Your task to perform on an android device: Search for sushi restaurants on Maps Image 0: 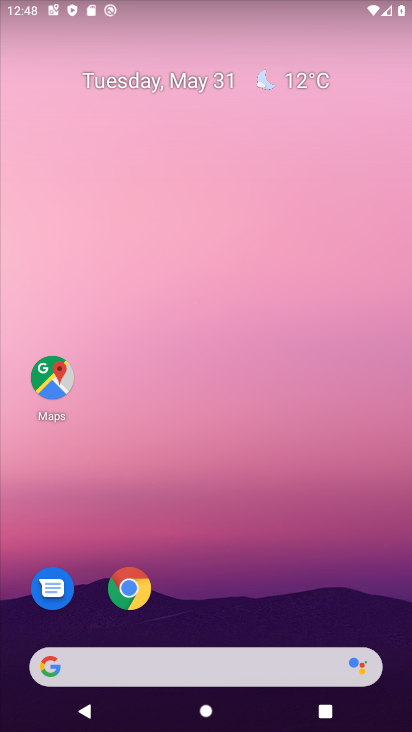
Step 0: click (46, 385)
Your task to perform on an android device: Search for sushi restaurants on Maps Image 1: 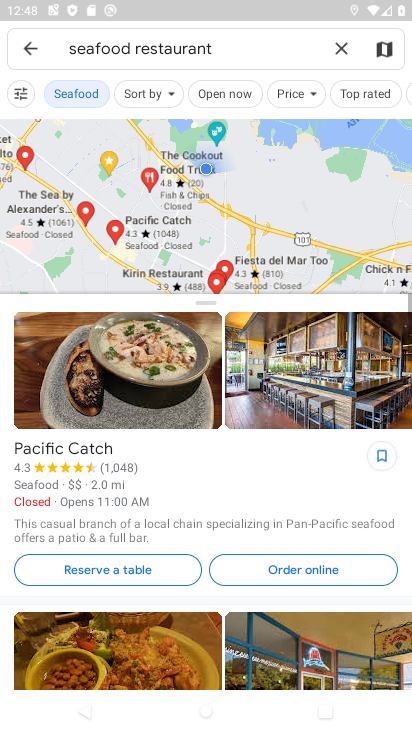
Step 1: click (335, 47)
Your task to perform on an android device: Search for sushi restaurants on Maps Image 2: 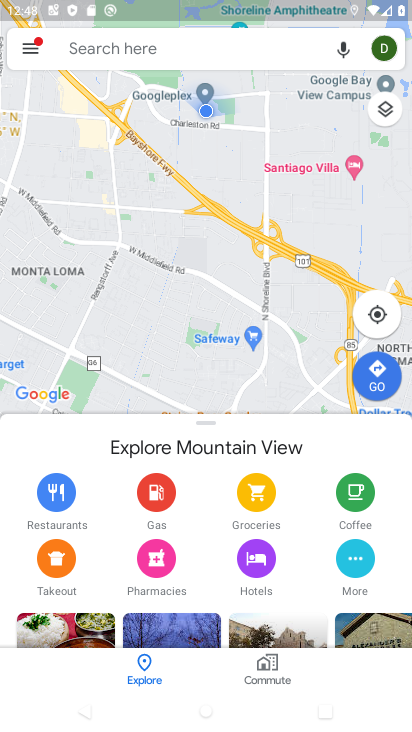
Step 2: click (194, 52)
Your task to perform on an android device: Search for sushi restaurants on Maps Image 3: 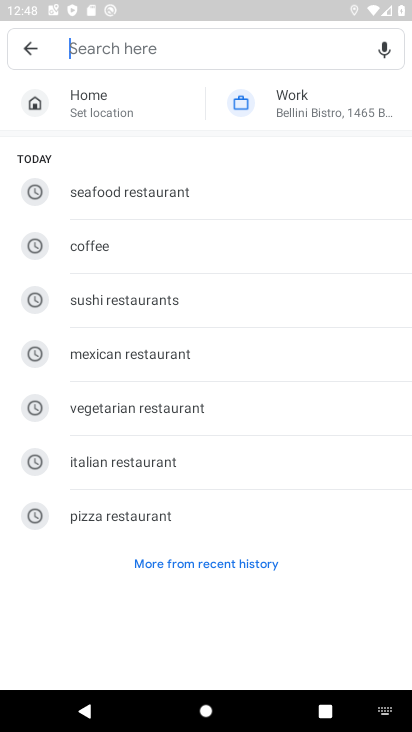
Step 3: type "sushi restaurants"
Your task to perform on an android device: Search for sushi restaurants on Maps Image 4: 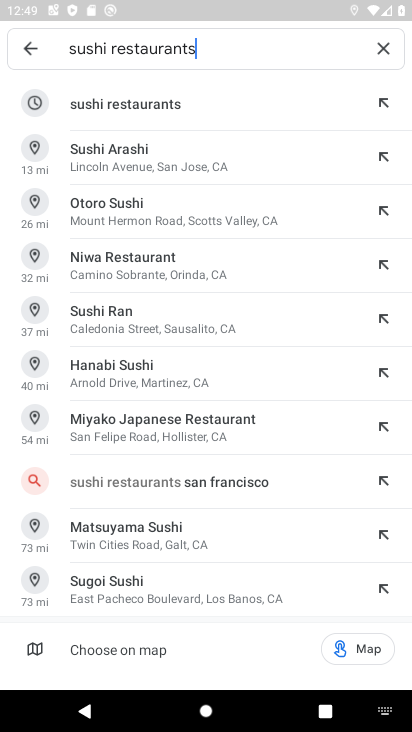
Step 4: click (160, 112)
Your task to perform on an android device: Search for sushi restaurants on Maps Image 5: 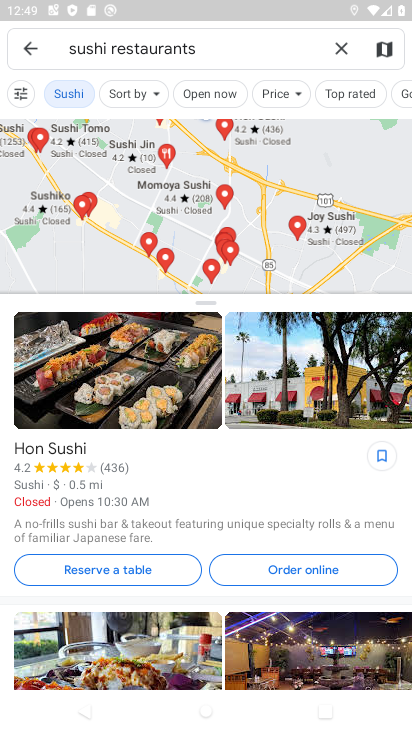
Step 5: task complete